Your task to perform on an android device: change the clock display to digital Image 0: 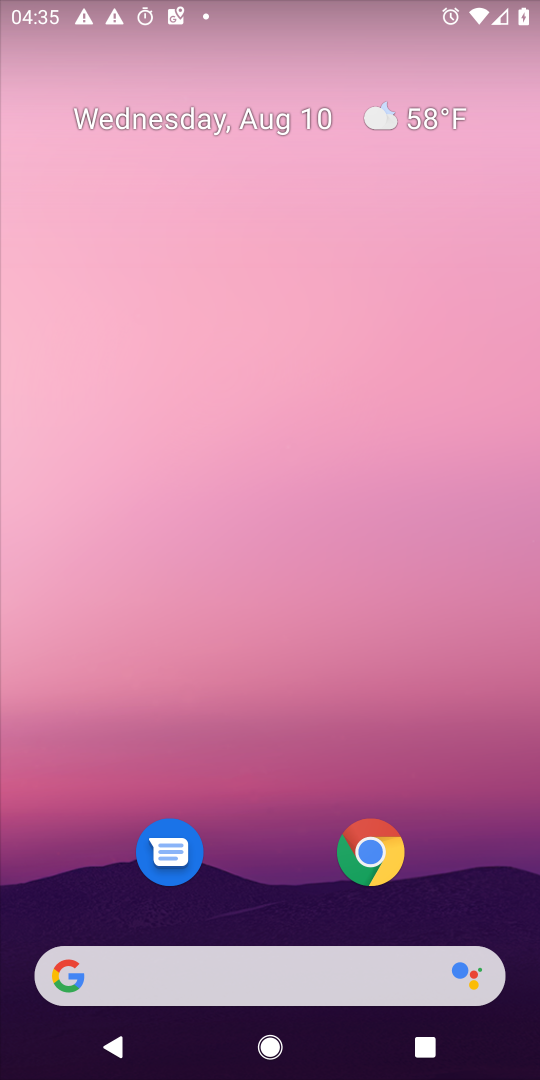
Step 0: drag from (454, 756) to (113, 238)
Your task to perform on an android device: change the clock display to digital Image 1: 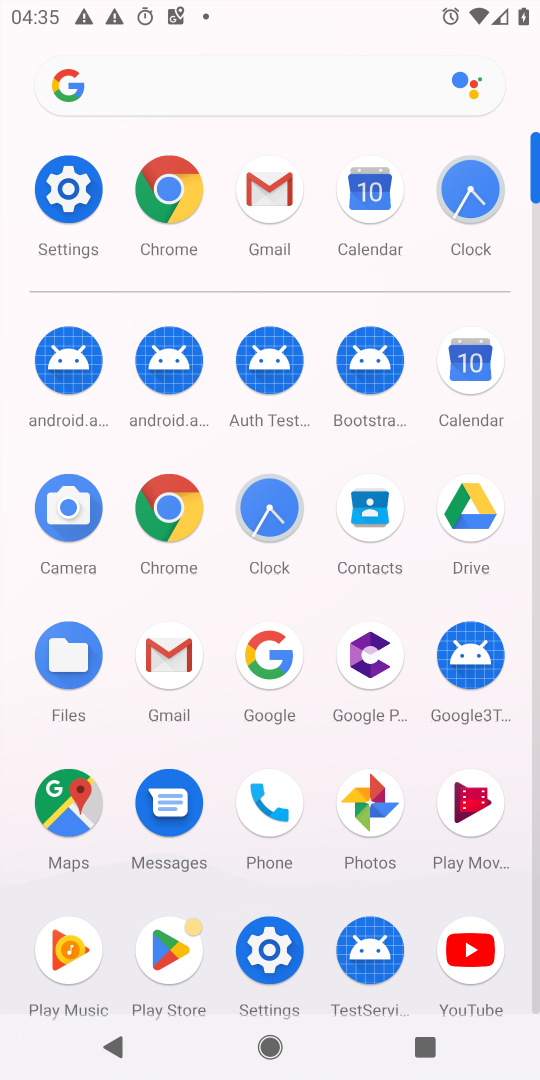
Step 1: click (262, 516)
Your task to perform on an android device: change the clock display to digital Image 2: 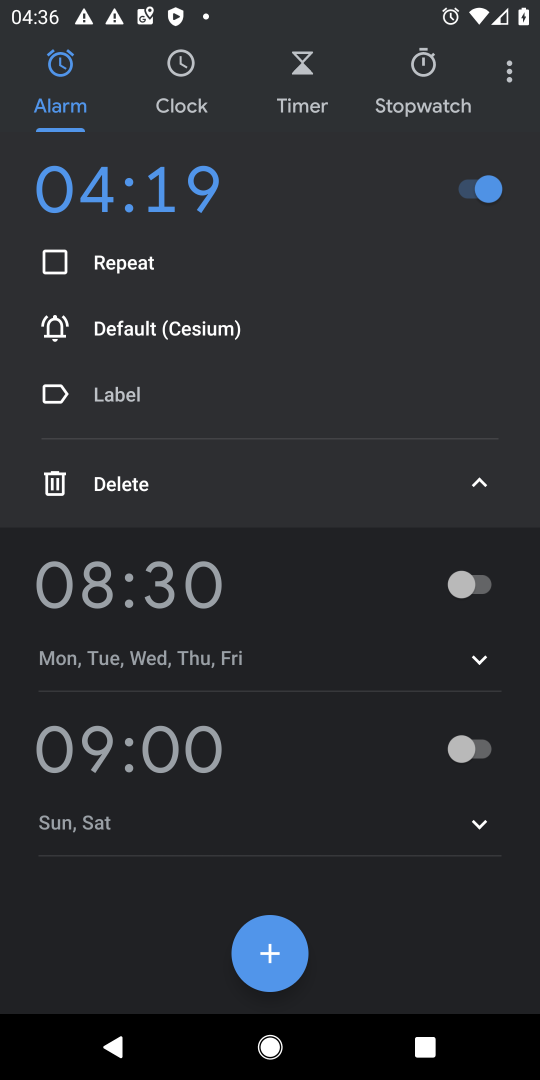
Step 2: click (505, 83)
Your task to perform on an android device: change the clock display to digital Image 3: 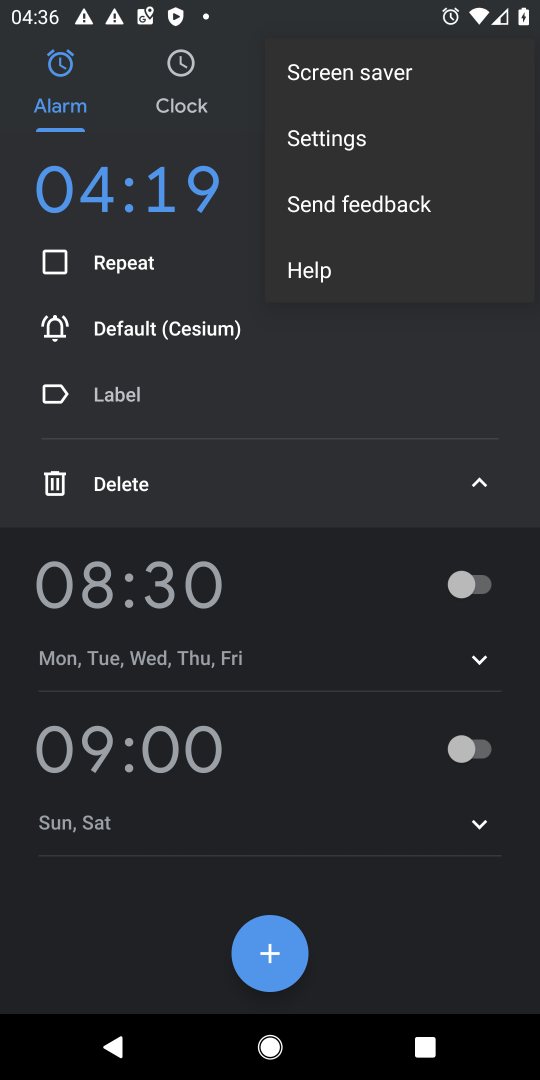
Step 3: click (333, 135)
Your task to perform on an android device: change the clock display to digital Image 4: 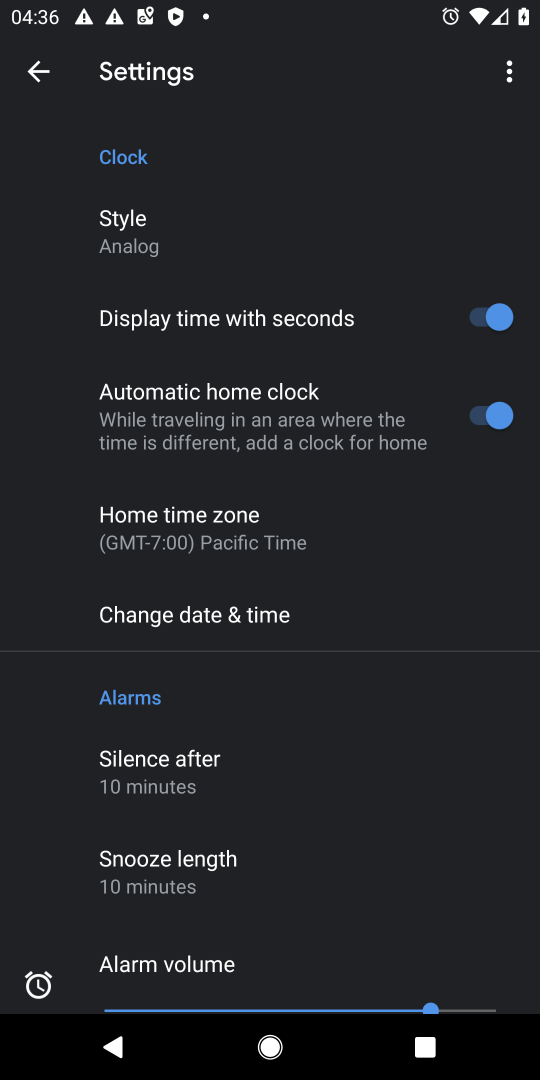
Step 4: click (172, 244)
Your task to perform on an android device: change the clock display to digital Image 5: 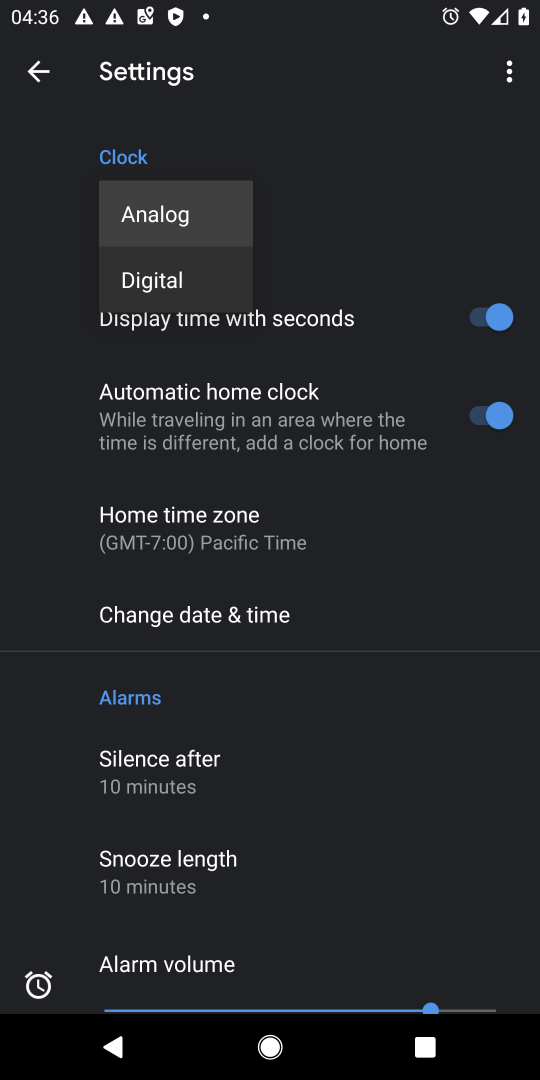
Step 5: click (170, 282)
Your task to perform on an android device: change the clock display to digital Image 6: 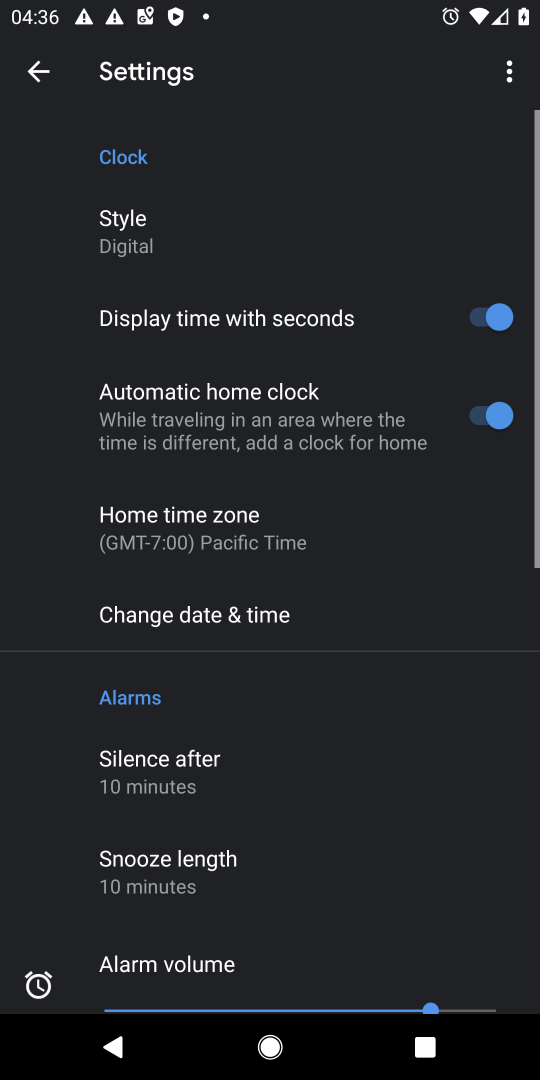
Step 6: task complete